Your task to perform on an android device: turn on javascript in the chrome app Image 0: 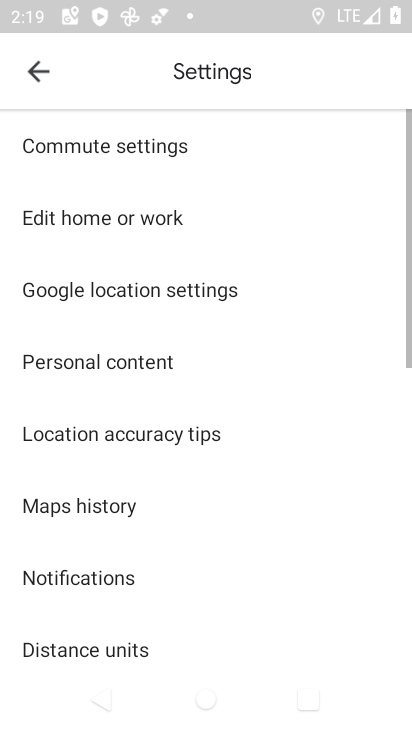
Step 0: press home button
Your task to perform on an android device: turn on javascript in the chrome app Image 1: 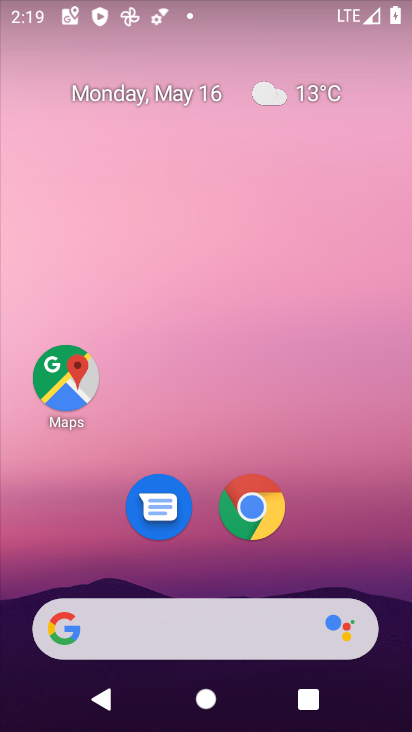
Step 1: click (256, 505)
Your task to perform on an android device: turn on javascript in the chrome app Image 2: 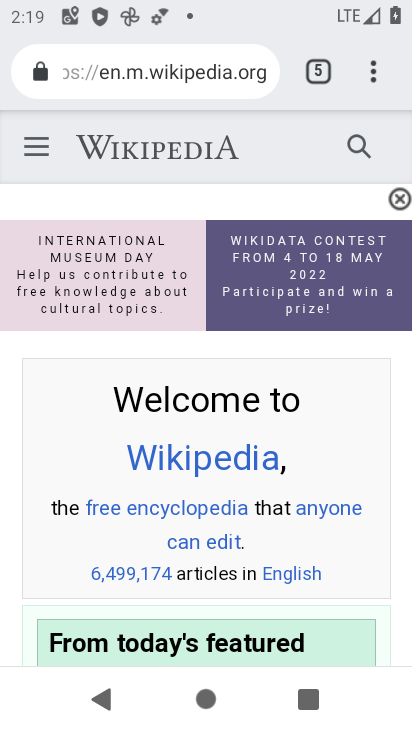
Step 2: click (367, 68)
Your task to perform on an android device: turn on javascript in the chrome app Image 3: 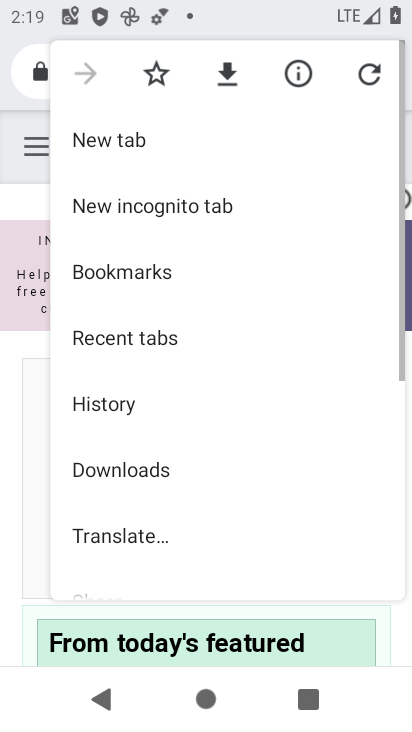
Step 3: drag from (211, 498) to (219, 137)
Your task to perform on an android device: turn on javascript in the chrome app Image 4: 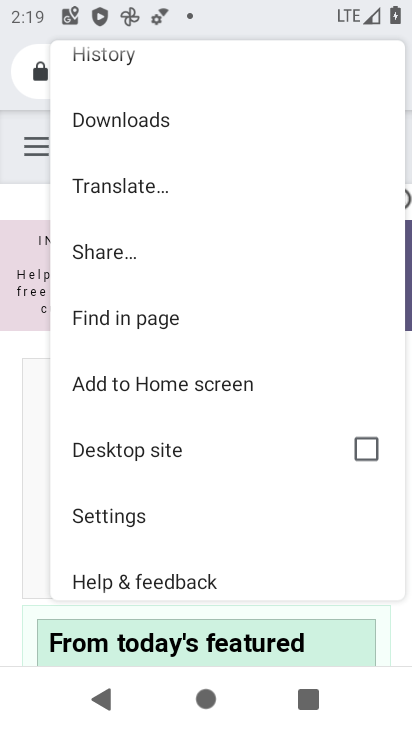
Step 4: click (181, 512)
Your task to perform on an android device: turn on javascript in the chrome app Image 5: 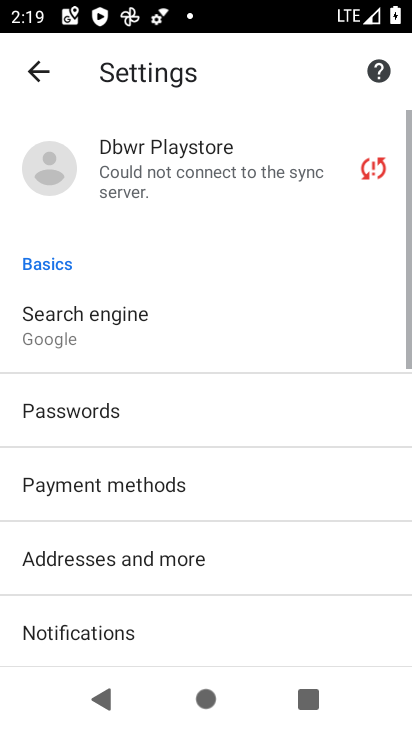
Step 5: drag from (224, 548) to (213, 183)
Your task to perform on an android device: turn on javascript in the chrome app Image 6: 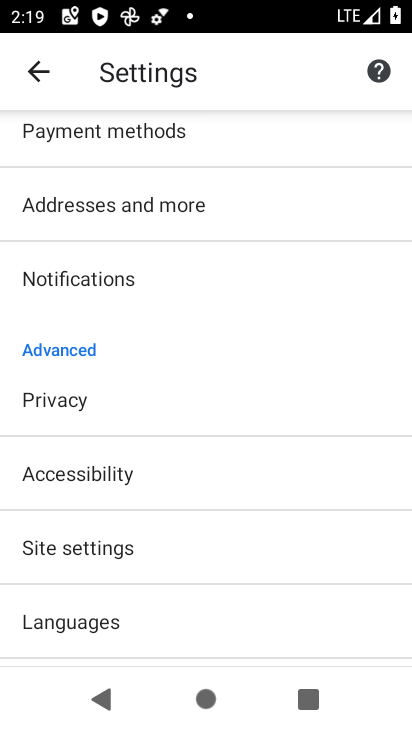
Step 6: drag from (195, 517) to (189, 167)
Your task to perform on an android device: turn on javascript in the chrome app Image 7: 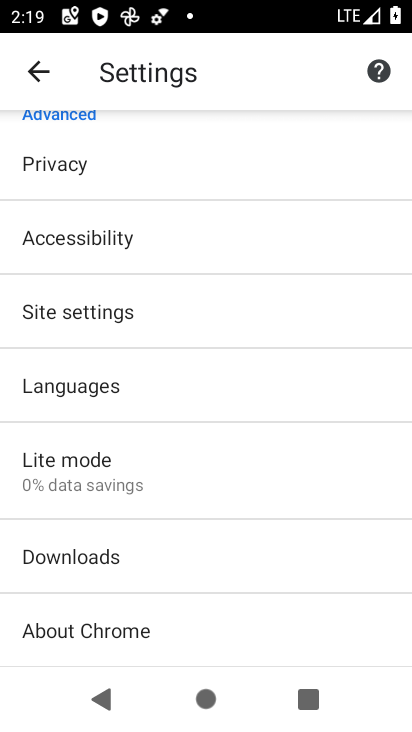
Step 7: click (123, 312)
Your task to perform on an android device: turn on javascript in the chrome app Image 8: 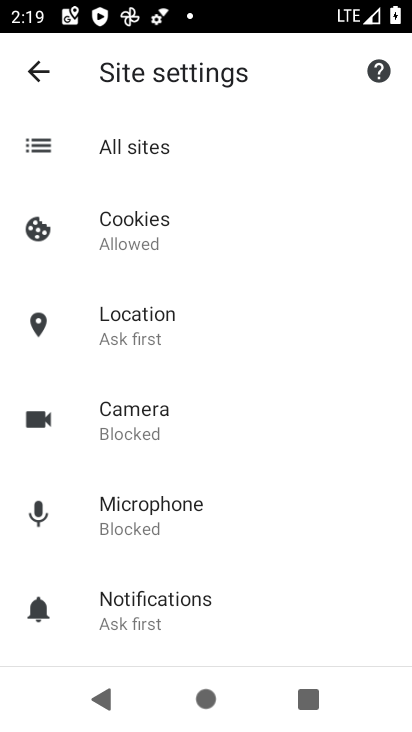
Step 8: drag from (218, 575) to (186, 251)
Your task to perform on an android device: turn on javascript in the chrome app Image 9: 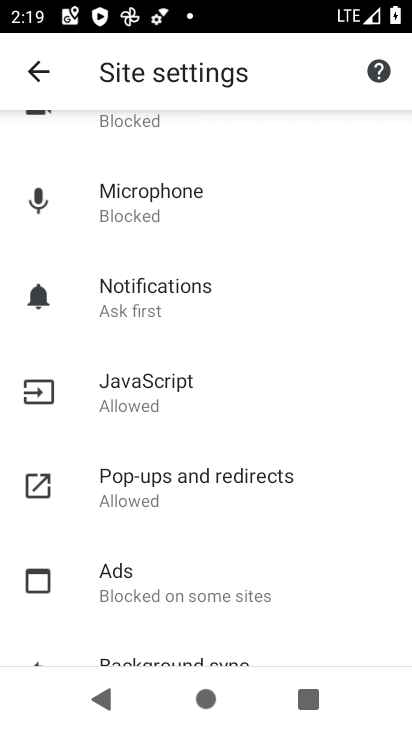
Step 9: click (210, 377)
Your task to perform on an android device: turn on javascript in the chrome app Image 10: 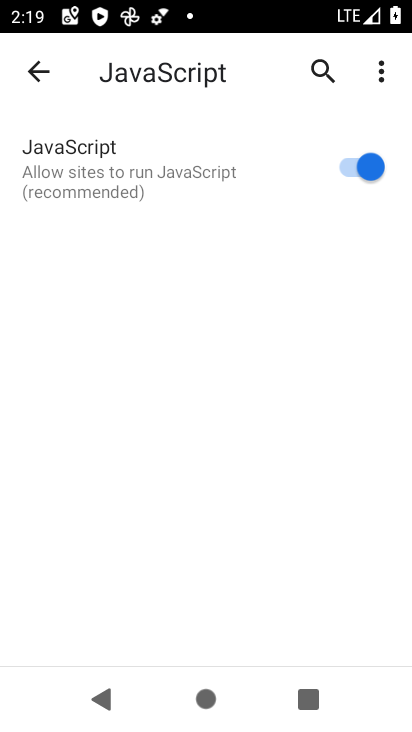
Step 10: task complete